Your task to perform on an android device: open sync settings in chrome Image 0: 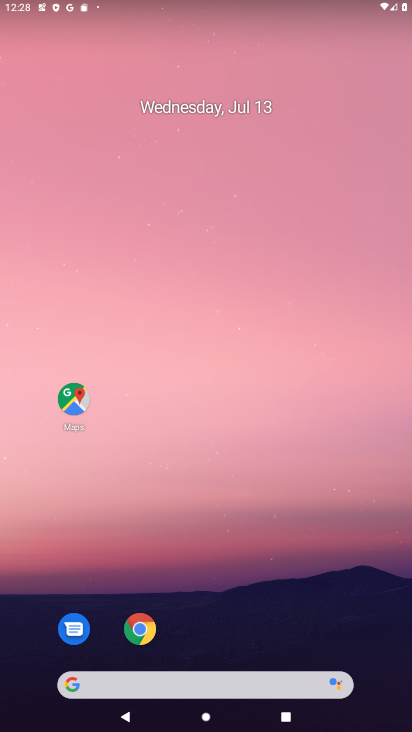
Step 0: drag from (235, 640) to (214, 388)
Your task to perform on an android device: open sync settings in chrome Image 1: 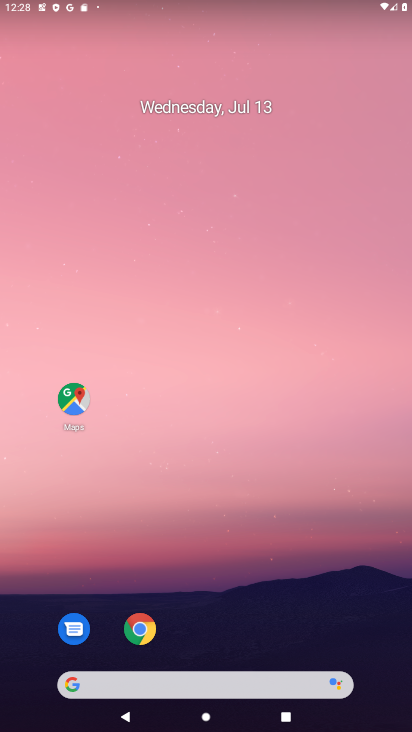
Step 1: drag from (217, 654) to (212, 286)
Your task to perform on an android device: open sync settings in chrome Image 2: 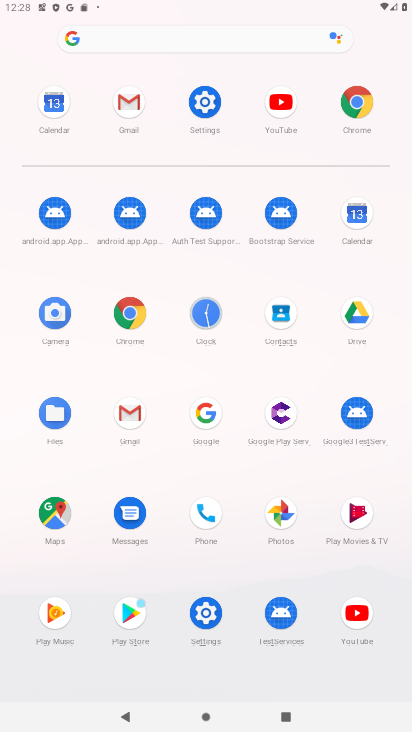
Step 2: click (360, 92)
Your task to perform on an android device: open sync settings in chrome Image 3: 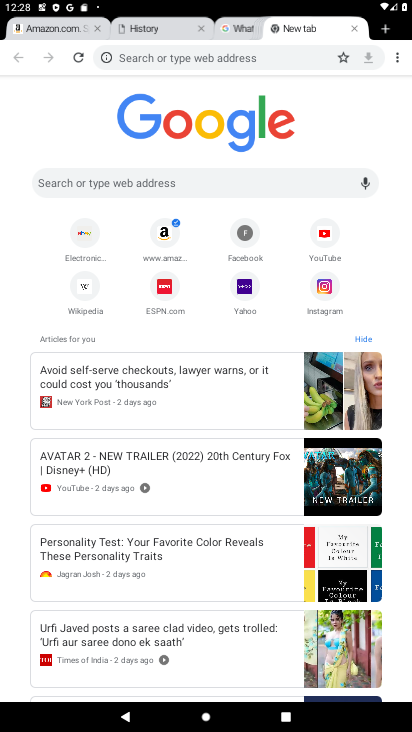
Step 3: click (396, 50)
Your task to perform on an android device: open sync settings in chrome Image 4: 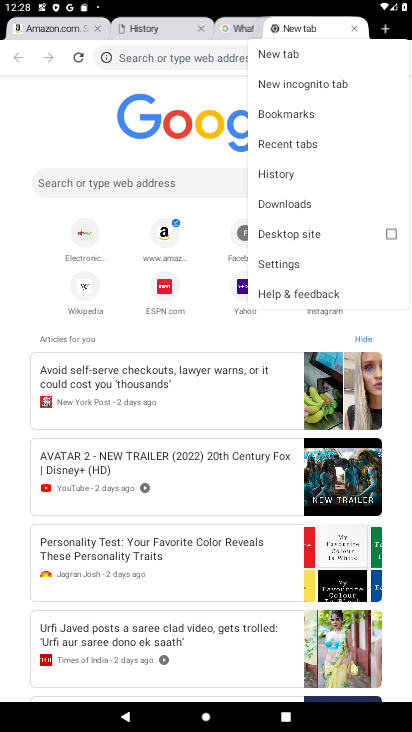
Step 4: click (281, 258)
Your task to perform on an android device: open sync settings in chrome Image 5: 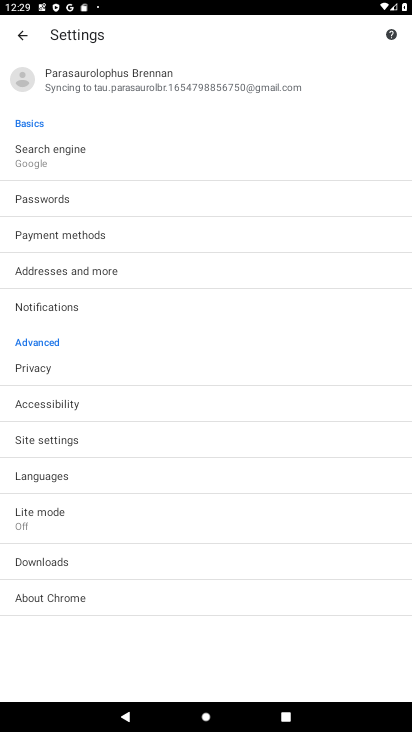
Step 5: click (100, 149)
Your task to perform on an android device: open sync settings in chrome Image 6: 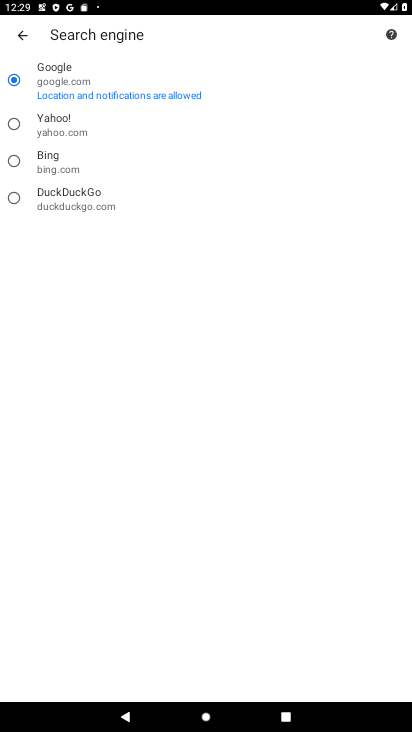
Step 6: click (20, 36)
Your task to perform on an android device: open sync settings in chrome Image 7: 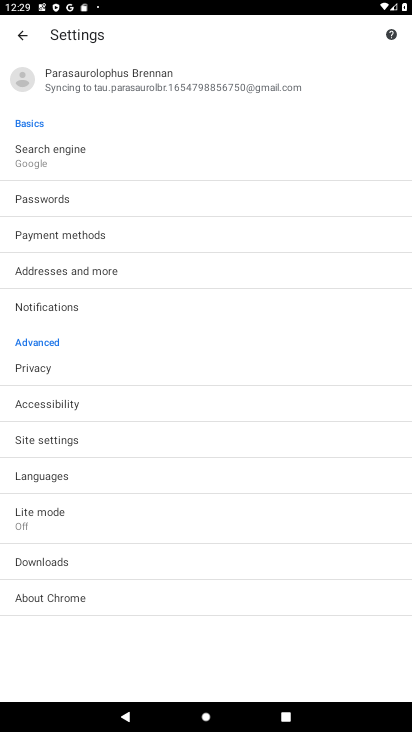
Step 7: click (84, 80)
Your task to perform on an android device: open sync settings in chrome Image 8: 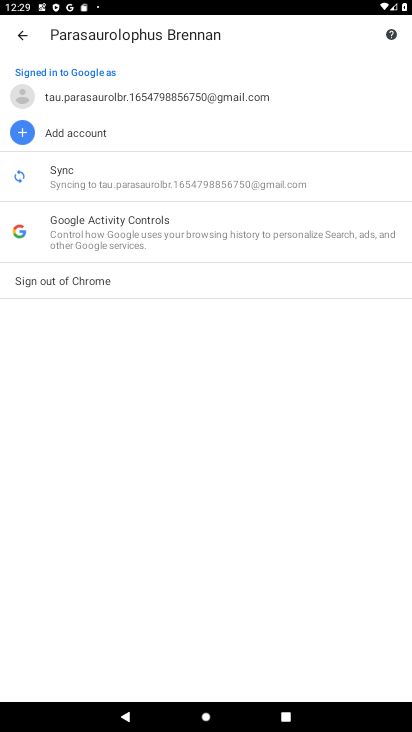
Step 8: click (70, 167)
Your task to perform on an android device: open sync settings in chrome Image 9: 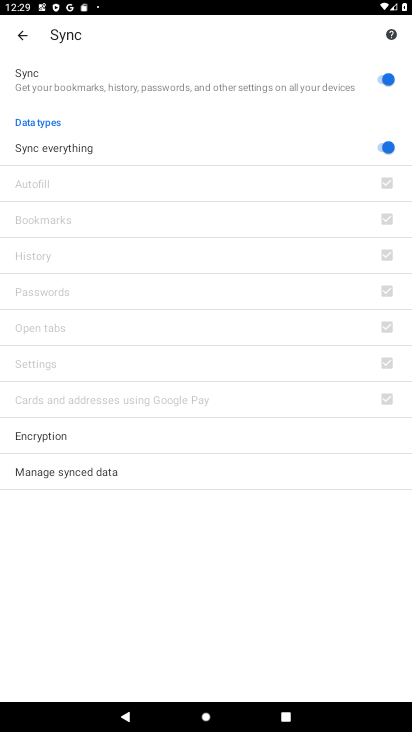
Step 9: task complete